Your task to perform on an android device: Open sound settings Image 0: 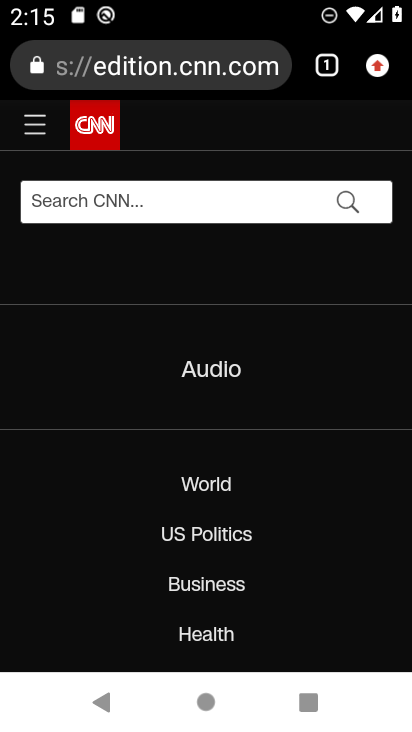
Step 0: press back button
Your task to perform on an android device: Open sound settings Image 1: 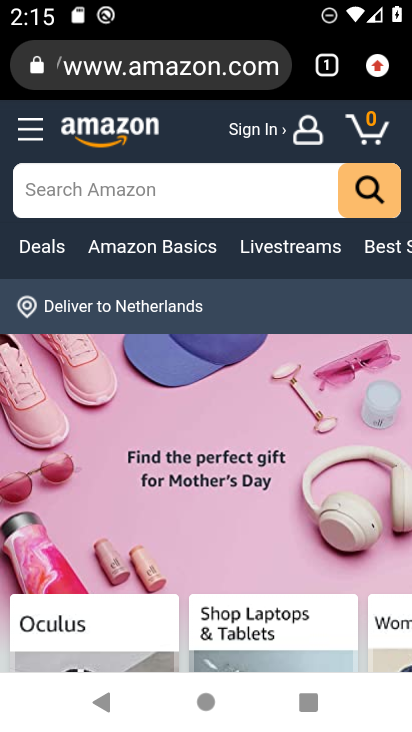
Step 1: press back button
Your task to perform on an android device: Open sound settings Image 2: 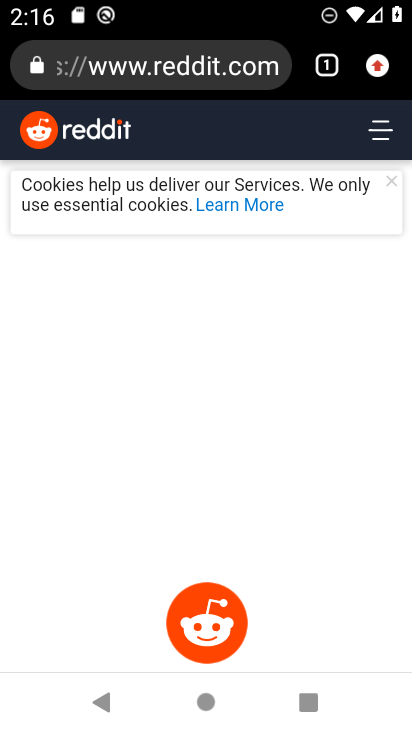
Step 2: press home button
Your task to perform on an android device: Open sound settings Image 3: 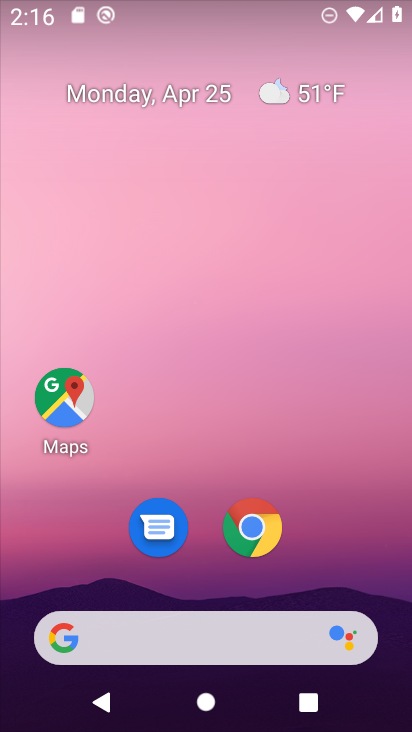
Step 3: drag from (322, 562) to (311, 16)
Your task to perform on an android device: Open sound settings Image 4: 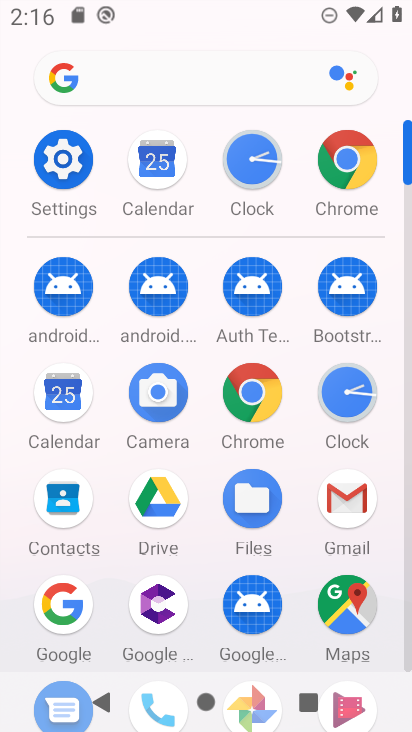
Step 4: drag from (8, 542) to (9, 159)
Your task to perform on an android device: Open sound settings Image 5: 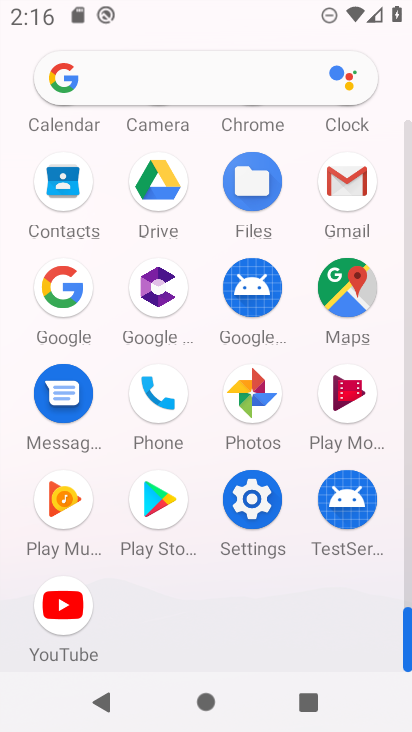
Step 5: click (251, 495)
Your task to perform on an android device: Open sound settings Image 6: 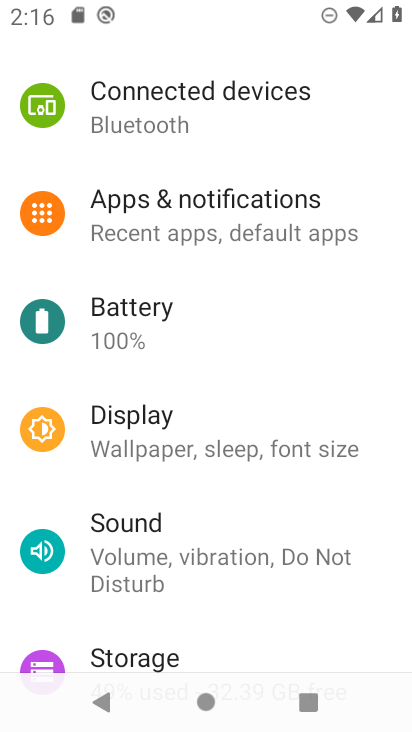
Step 6: drag from (252, 197) to (250, 570)
Your task to perform on an android device: Open sound settings Image 7: 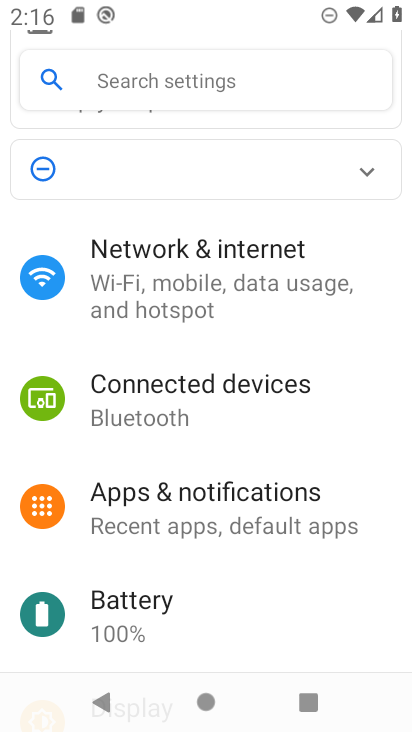
Step 7: drag from (250, 570) to (288, 234)
Your task to perform on an android device: Open sound settings Image 8: 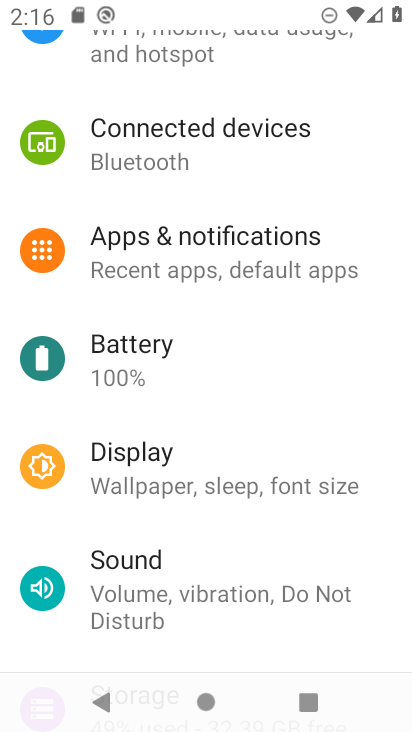
Step 8: click (188, 583)
Your task to perform on an android device: Open sound settings Image 9: 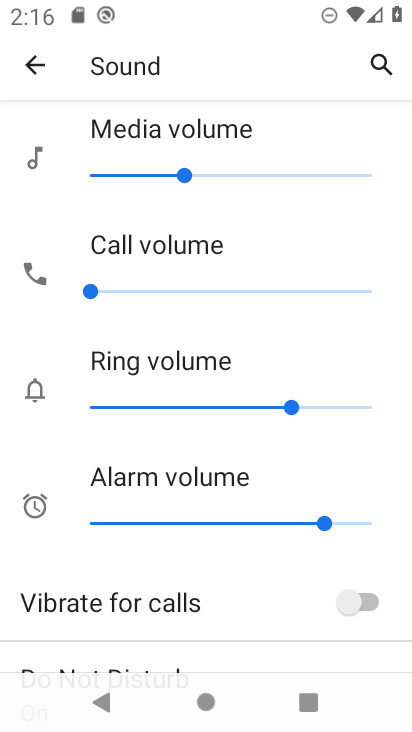
Step 9: task complete